Your task to perform on an android device: Open the calendar and show me this week's events? Image 0: 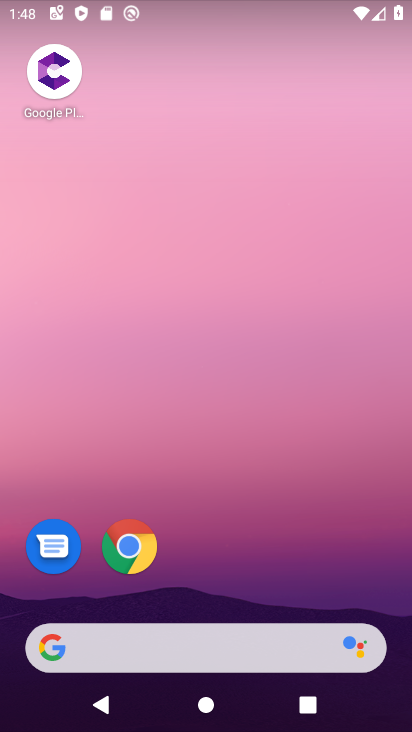
Step 0: drag from (274, 595) to (287, 75)
Your task to perform on an android device: Open the calendar and show me this week's events? Image 1: 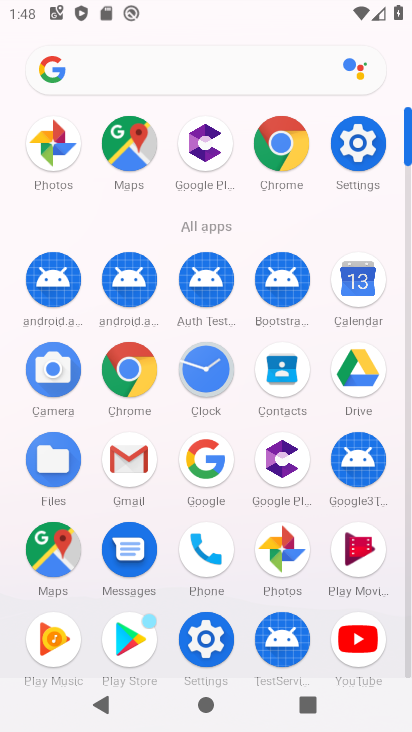
Step 1: click (362, 272)
Your task to perform on an android device: Open the calendar and show me this week's events? Image 2: 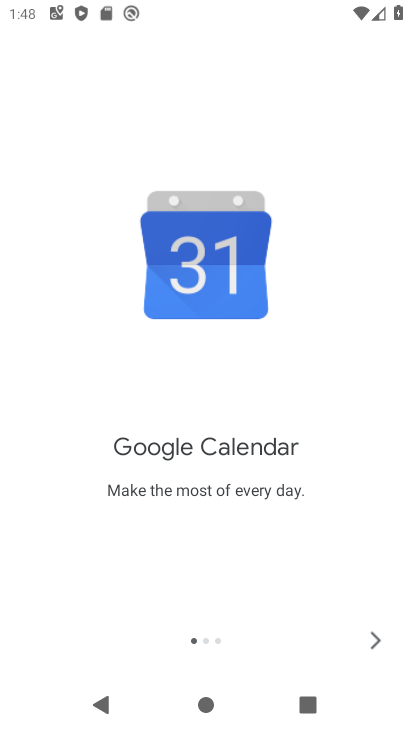
Step 2: click (375, 637)
Your task to perform on an android device: Open the calendar and show me this week's events? Image 3: 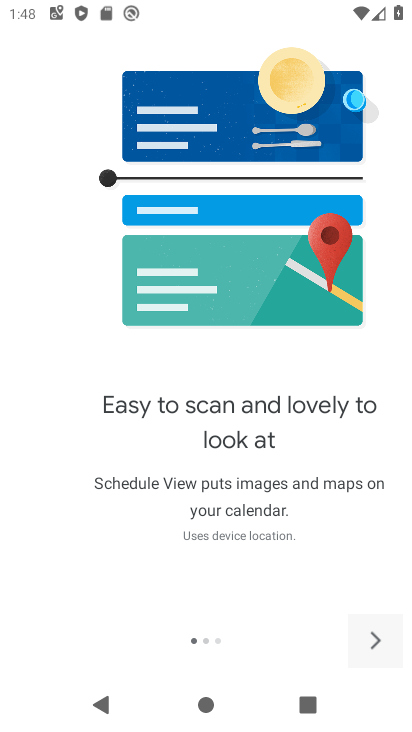
Step 3: click (376, 636)
Your task to perform on an android device: Open the calendar and show me this week's events? Image 4: 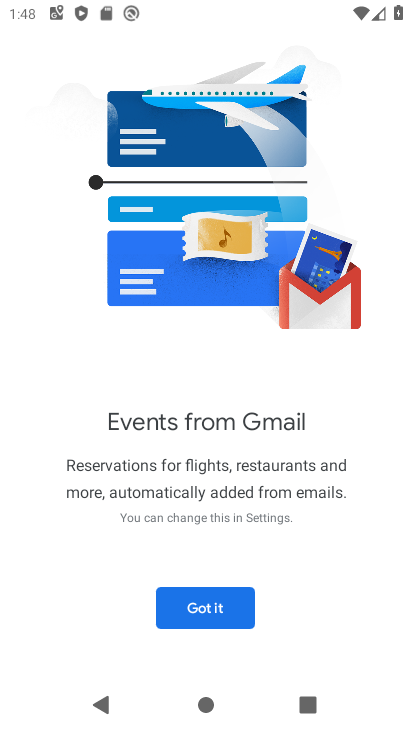
Step 4: click (207, 612)
Your task to perform on an android device: Open the calendar and show me this week's events? Image 5: 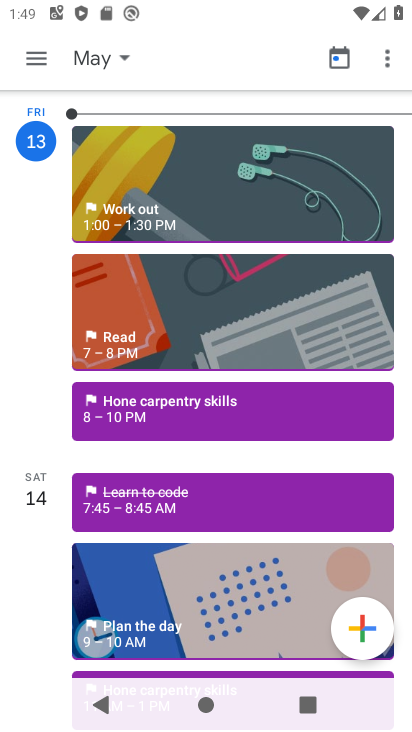
Step 5: click (42, 63)
Your task to perform on an android device: Open the calendar and show me this week's events? Image 6: 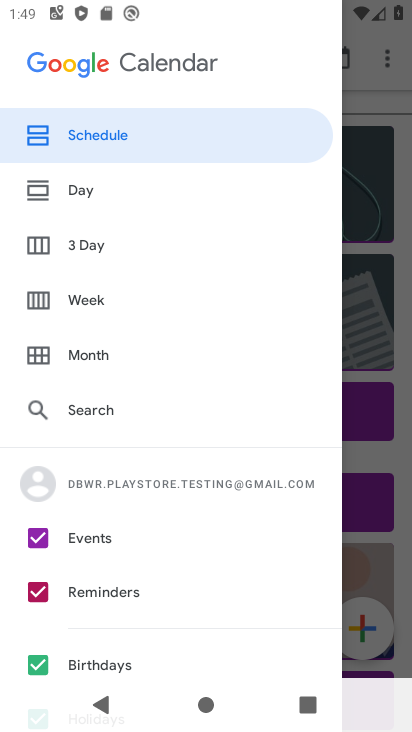
Step 6: click (96, 309)
Your task to perform on an android device: Open the calendar and show me this week's events? Image 7: 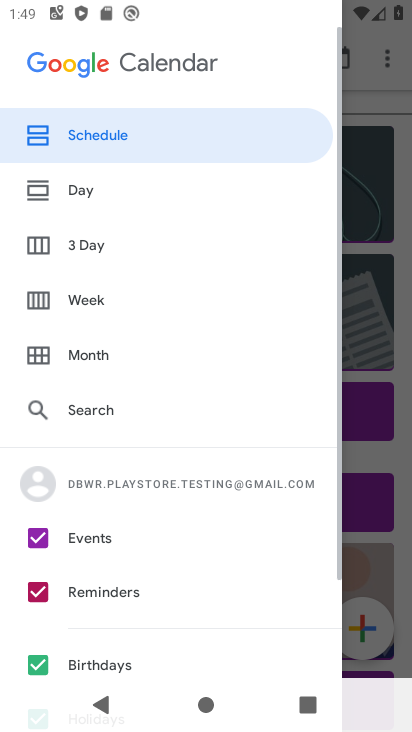
Step 7: click (79, 291)
Your task to perform on an android device: Open the calendar and show me this week's events? Image 8: 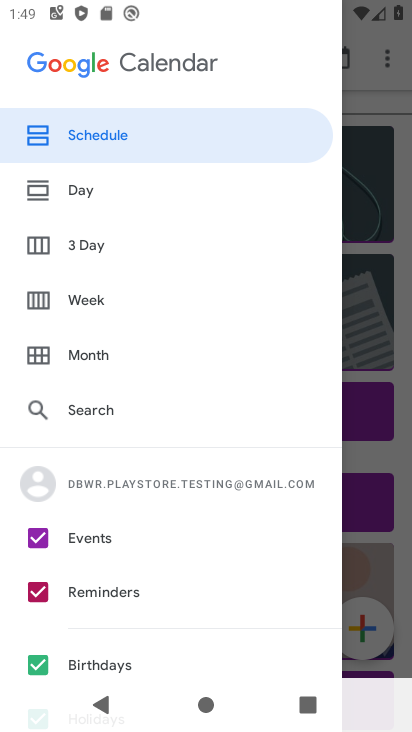
Step 8: click (92, 289)
Your task to perform on an android device: Open the calendar and show me this week's events? Image 9: 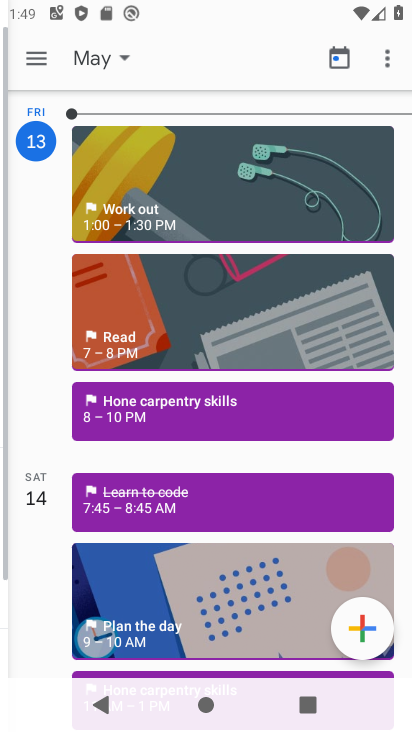
Step 9: click (95, 291)
Your task to perform on an android device: Open the calendar and show me this week's events? Image 10: 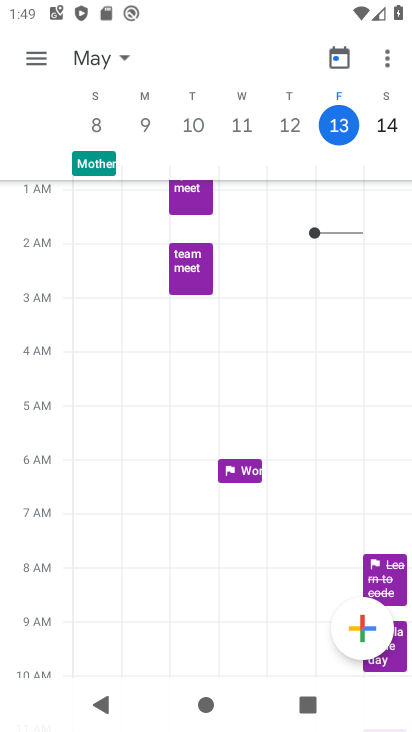
Step 10: task complete